Your task to perform on an android device: toggle show notifications on the lock screen Image 0: 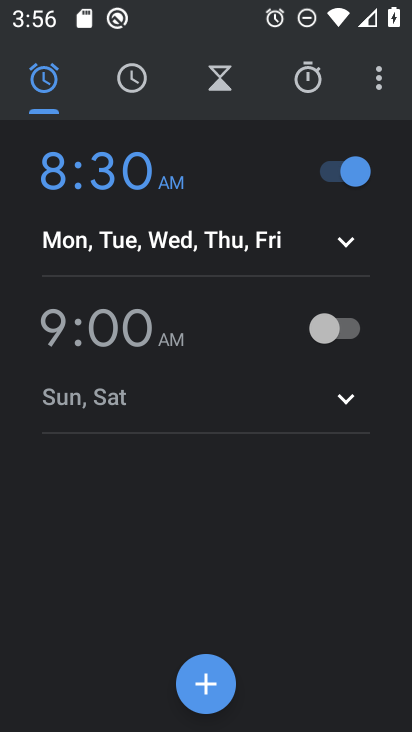
Step 0: press home button
Your task to perform on an android device: toggle show notifications on the lock screen Image 1: 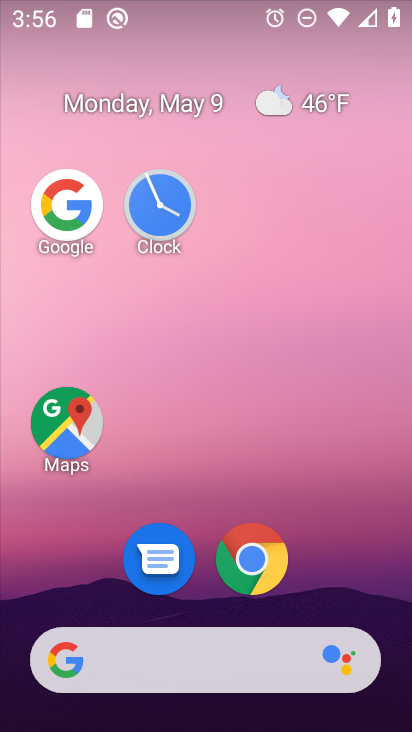
Step 1: drag from (320, 597) to (340, 170)
Your task to perform on an android device: toggle show notifications on the lock screen Image 2: 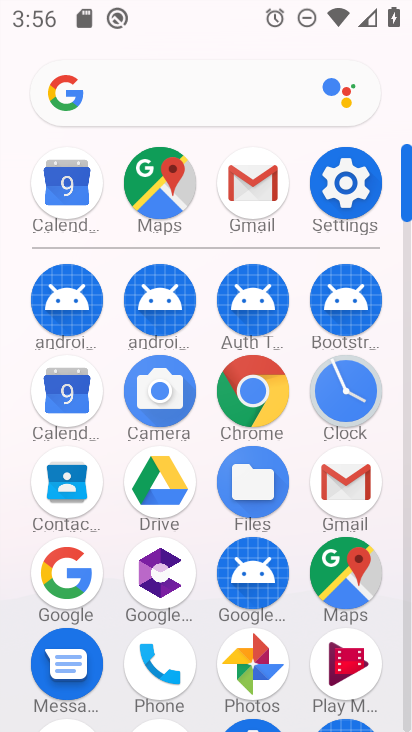
Step 2: click (347, 204)
Your task to perform on an android device: toggle show notifications on the lock screen Image 3: 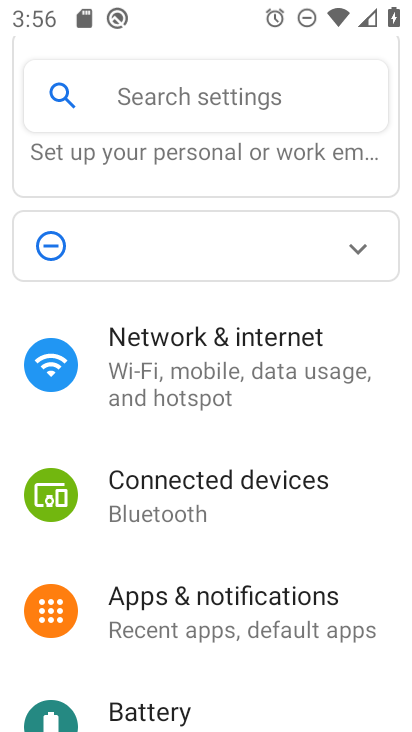
Step 3: click (272, 597)
Your task to perform on an android device: toggle show notifications on the lock screen Image 4: 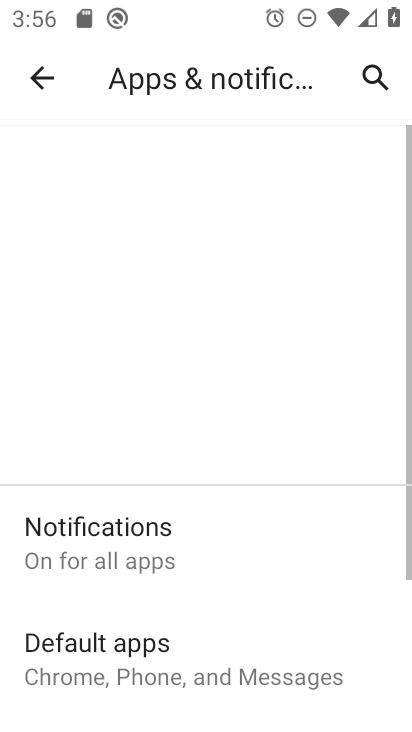
Step 4: drag from (272, 597) to (247, 220)
Your task to perform on an android device: toggle show notifications on the lock screen Image 5: 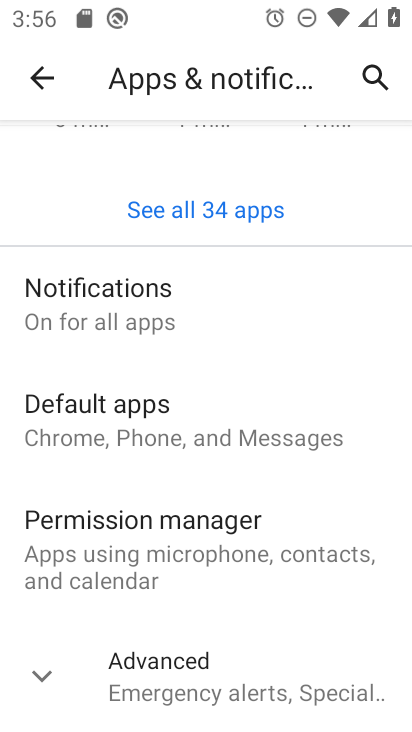
Step 5: click (209, 339)
Your task to perform on an android device: toggle show notifications on the lock screen Image 6: 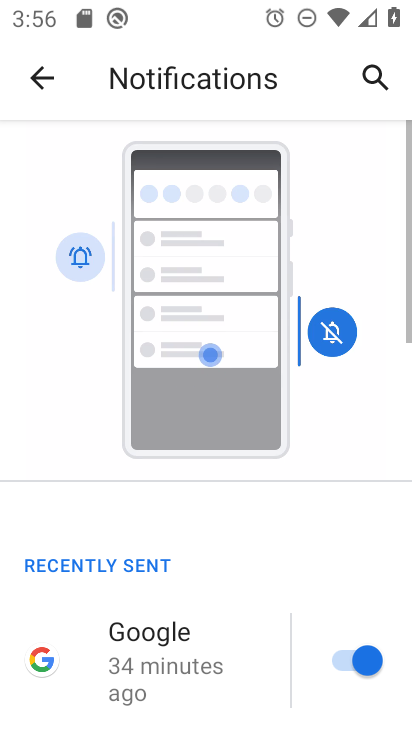
Step 6: drag from (205, 583) to (245, 216)
Your task to perform on an android device: toggle show notifications on the lock screen Image 7: 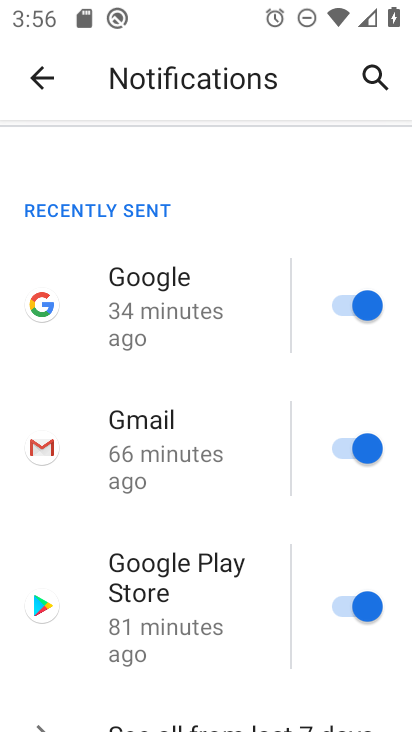
Step 7: drag from (208, 677) to (238, 262)
Your task to perform on an android device: toggle show notifications on the lock screen Image 8: 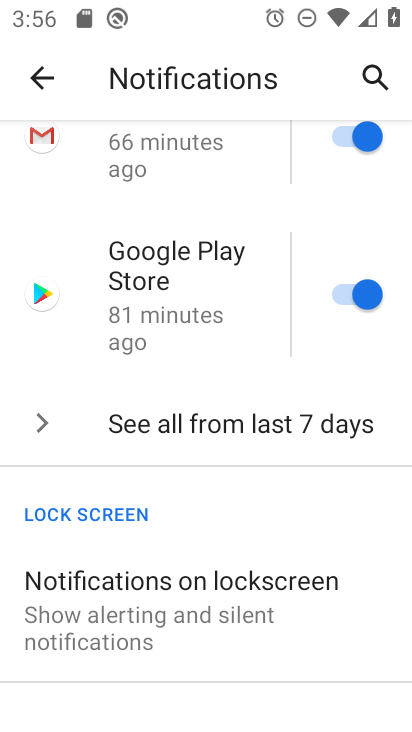
Step 8: click (231, 611)
Your task to perform on an android device: toggle show notifications on the lock screen Image 9: 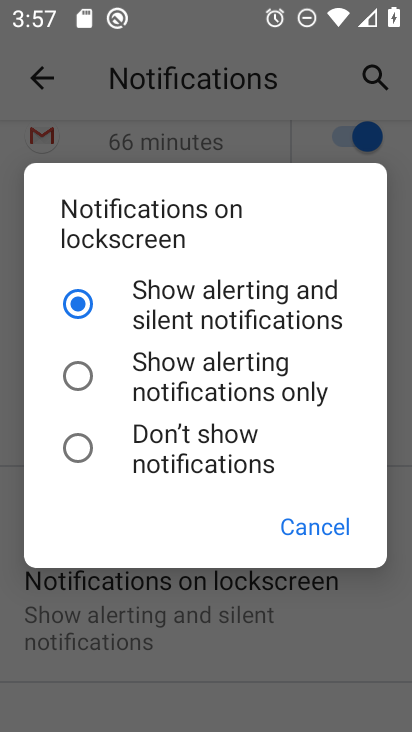
Step 9: click (81, 362)
Your task to perform on an android device: toggle show notifications on the lock screen Image 10: 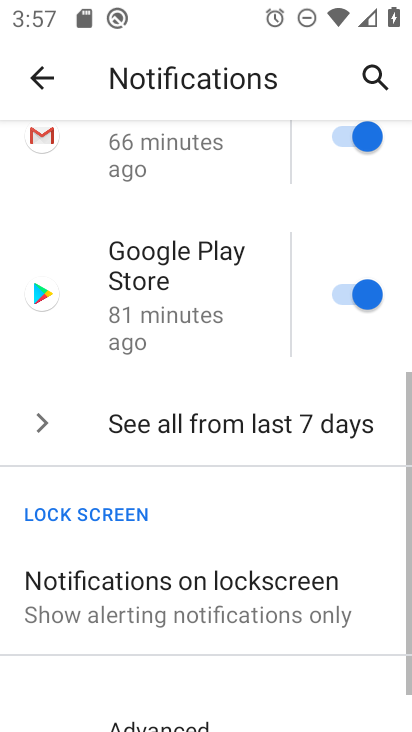
Step 10: task complete